Your task to perform on an android device: check battery use Image 0: 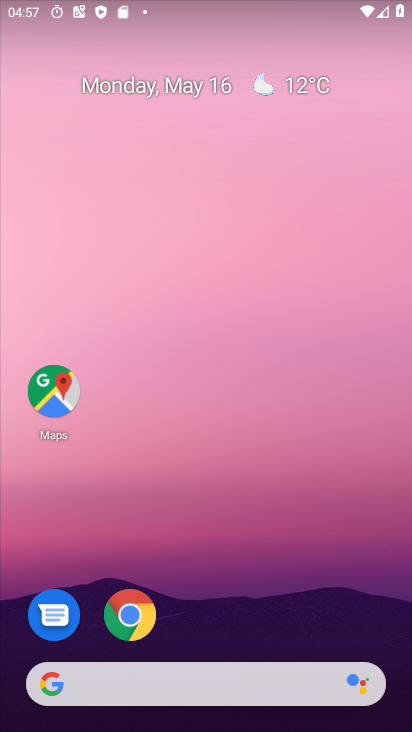
Step 0: drag from (286, 667) to (157, 136)
Your task to perform on an android device: check battery use Image 1: 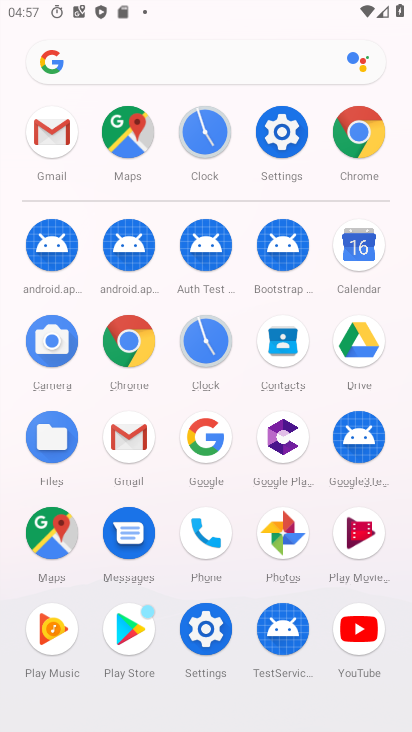
Step 1: click (203, 348)
Your task to perform on an android device: check battery use Image 2: 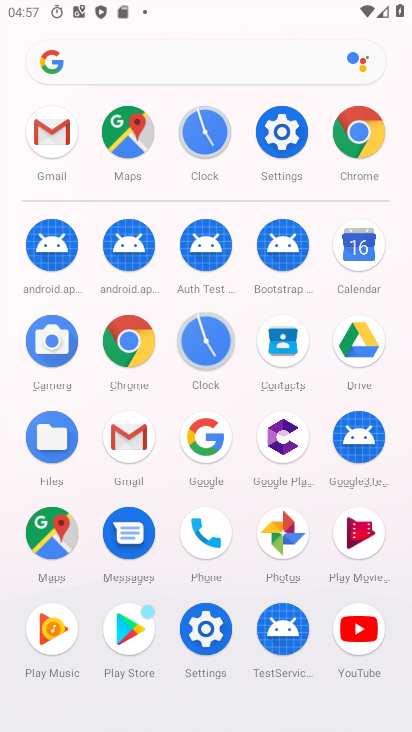
Step 2: click (204, 347)
Your task to perform on an android device: check battery use Image 3: 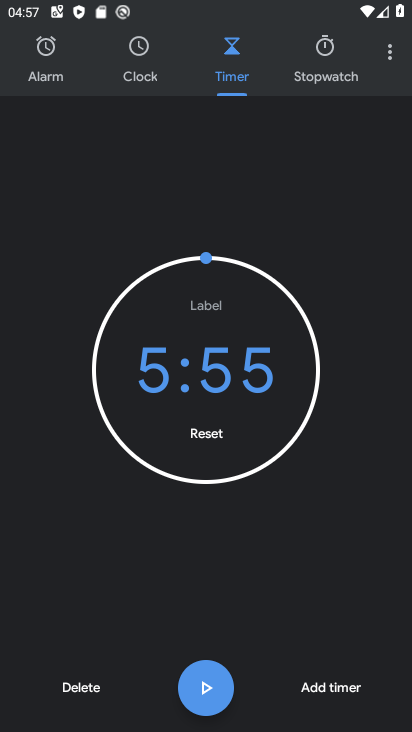
Step 3: press home button
Your task to perform on an android device: check battery use Image 4: 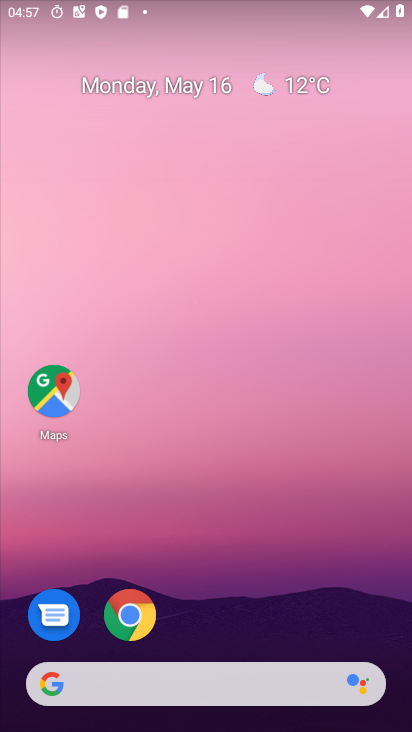
Step 4: drag from (295, 621) to (147, 142)
Your task to perform on an android device: check battery use Image 5: 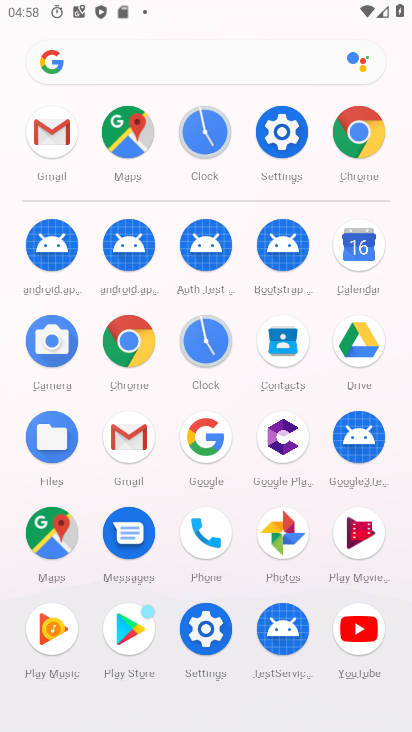
Step 5: click (264, 146)
Your task to perform on an android device: check battery use Image 6: 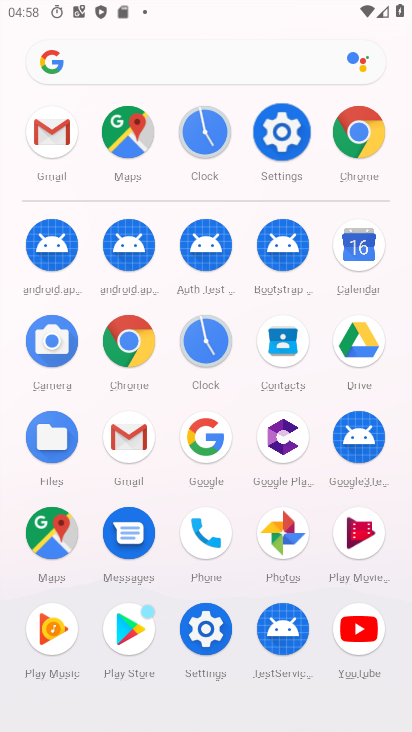
Step 6: click (290, 106)
Your task to perform on an android device: check battery use Image 7: 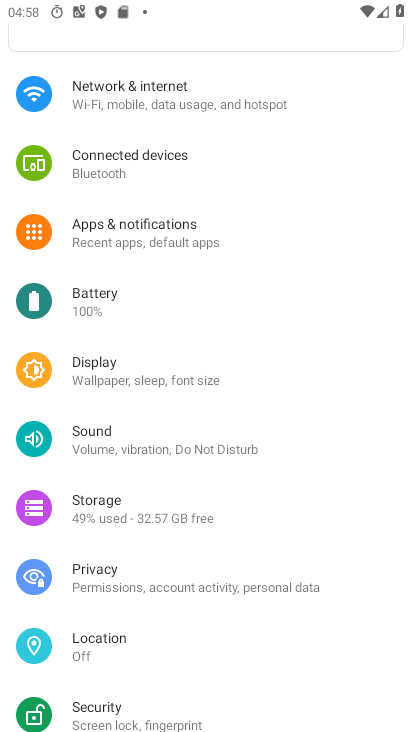
Step 7: click (81, 303)
Your task to perform on an android device: check battery use Image 8: 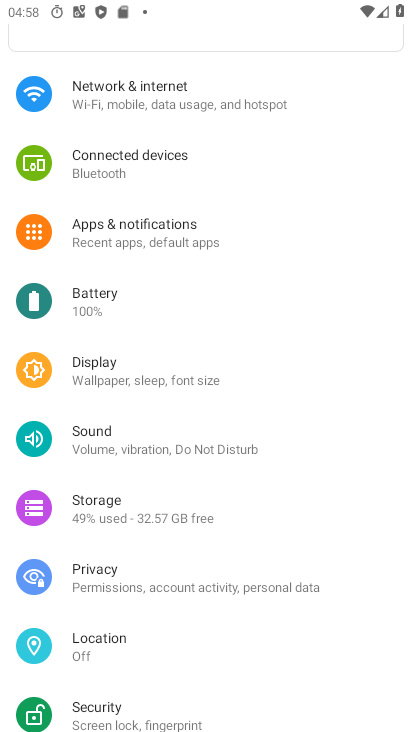
Step 8: click (81, 303)
Your task to perform on an android device: check battery use Image 9: 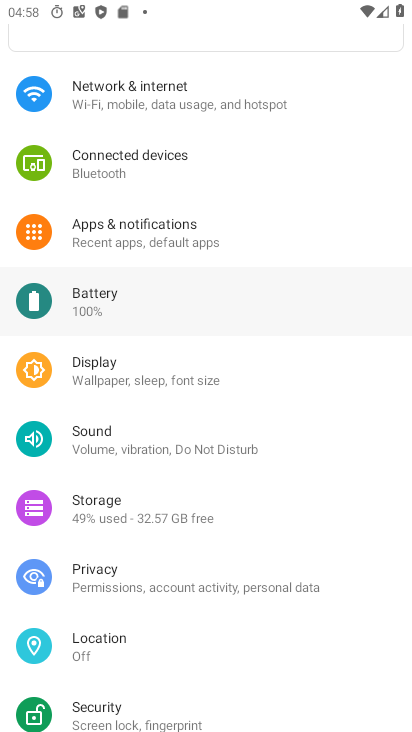
Step 9: click (81, 302)
Your task to perform on an android device: check battery use Image 10: 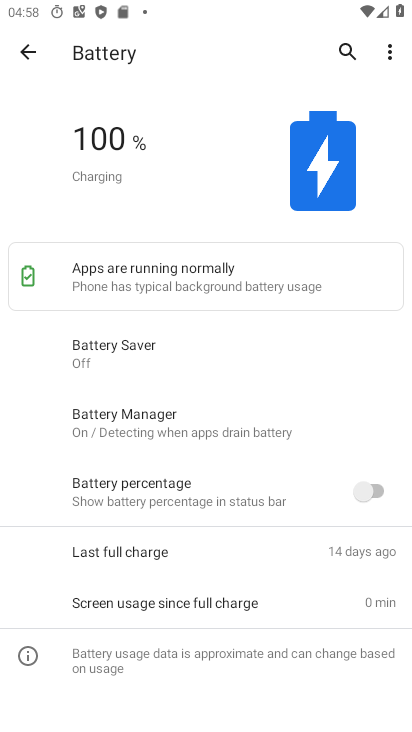
Step 10: task complete